Your task to perform on an android device: Open calendar and show me the second week of next month Image 0: 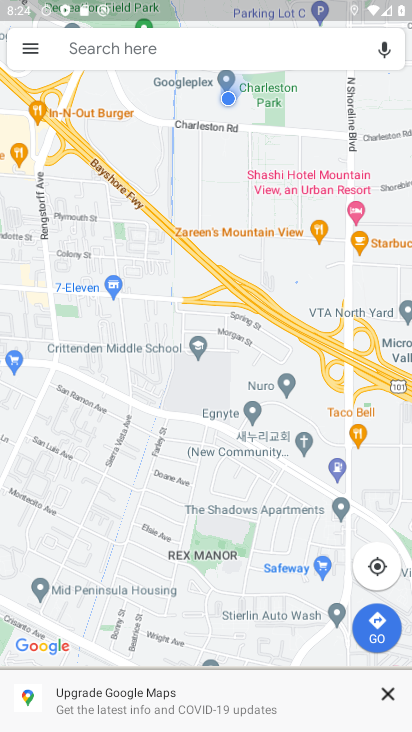
Step 0: drag from (207, 583) to (248, 355)
Your task to perform on an android device: Open calendar and show me the second week of next month Image 1: 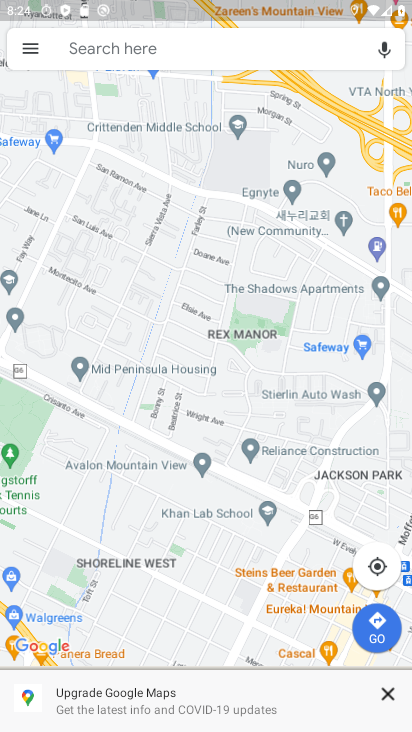
Step 1: press home button
Your task to perform on an android device: Open calendar and show me the second week of next month Image 2: 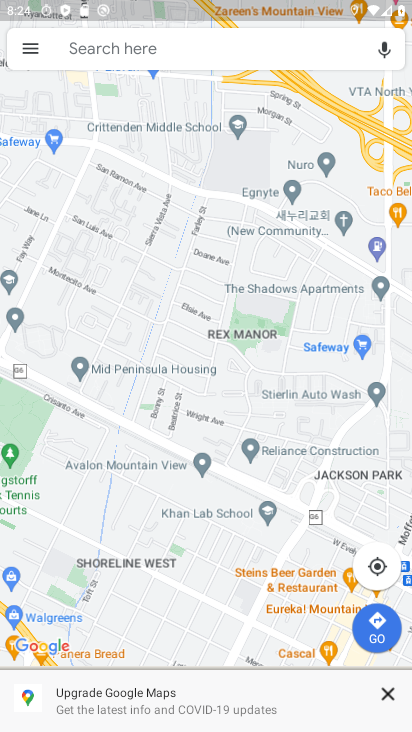
Step 2: press home button
Your task to perform on an android device: Open calendar and show me the second week of next month Image 3: 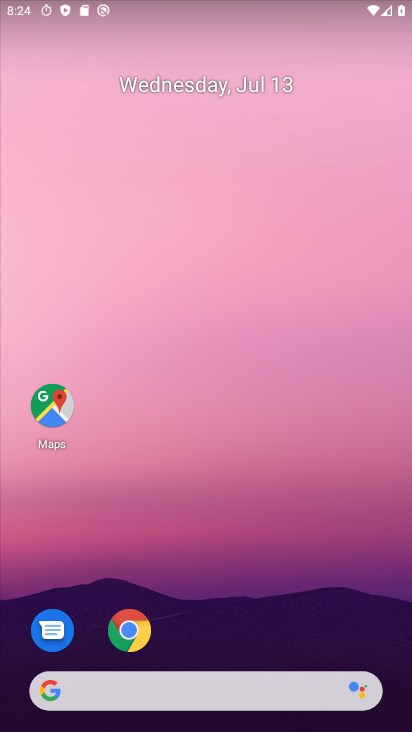
Step 3: drag from (229, 632) to (291, 178)
Your task to perform on an android device: Open calendar and show me the second week of next month Image 4: 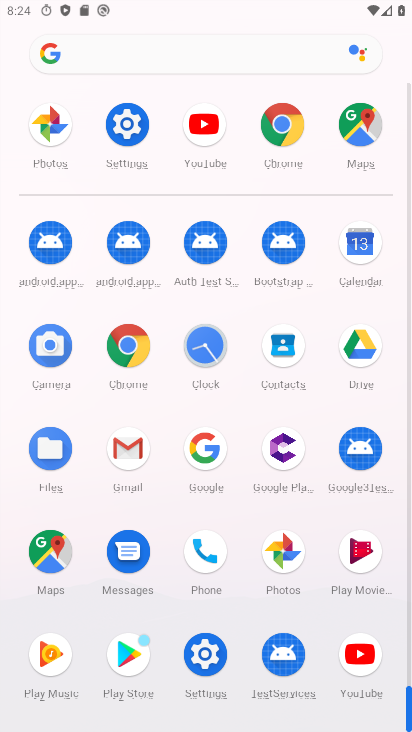
Step 4: click (351, 237)
Your task to perform on an android device: Open calendar and show me the second week of next month Image 5: 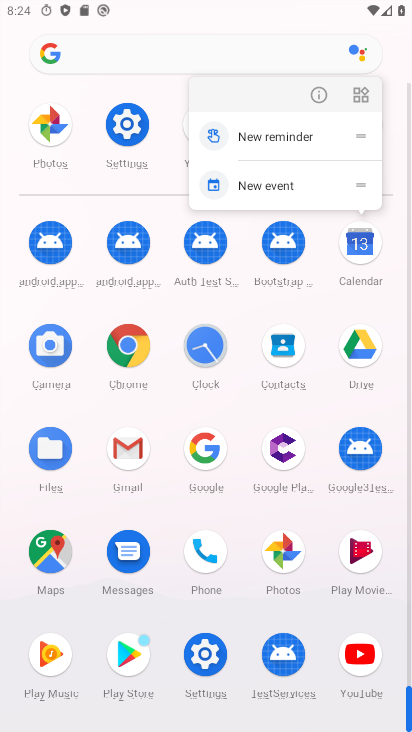
Step 5: click (323, 100)
Your task to perform on an android device: Open calendar and show me the second week of next month Image 6: 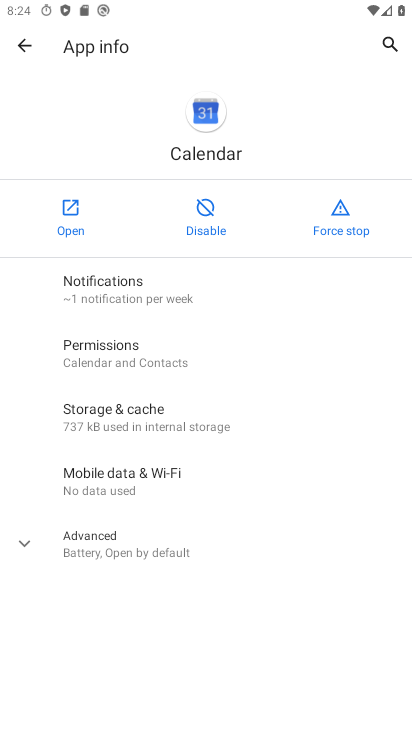
Step 6: click (76, 210)
Your task to perform on an android device: Open calendar and show me the second week of next month Image 7: 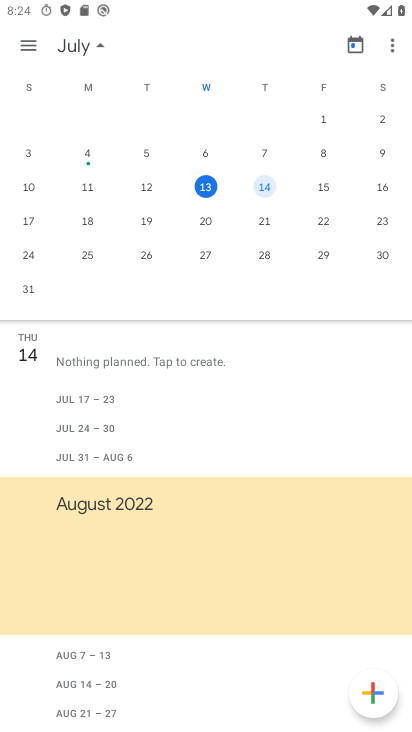
Step 7: drag from (211, 548) to (211, 393)
Your task to perform on an android device: Open calendar and show me the second week of next month Image 8: 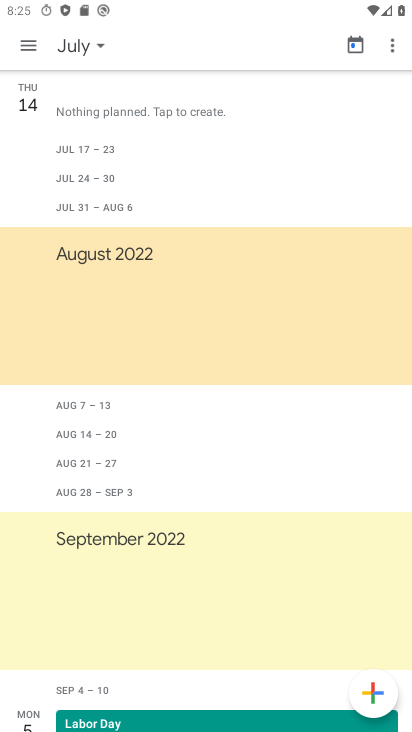
Step 8: drag from (203, 583) to (240, 238)
Your task to perform on an android device: Open calendar and show me the second week of next month Image 9: 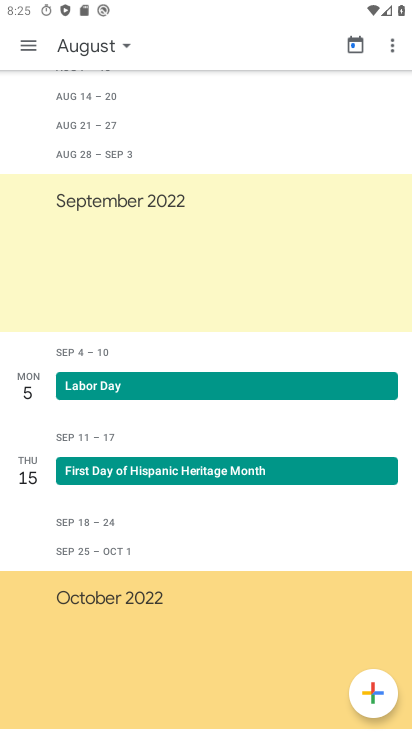
Step 9: drag from (233, 560) to (243, 303)
Your task to perform on an android device: Open calendar and show me the second week of next month Image 10: 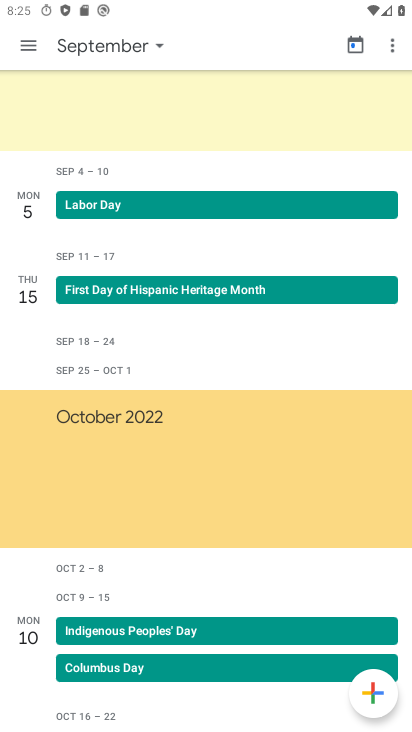
Step 10: drag from (225, 223) to (255, 706)
Your task to perform on an android device: Open calendar and show me the second week of next month Image 11: 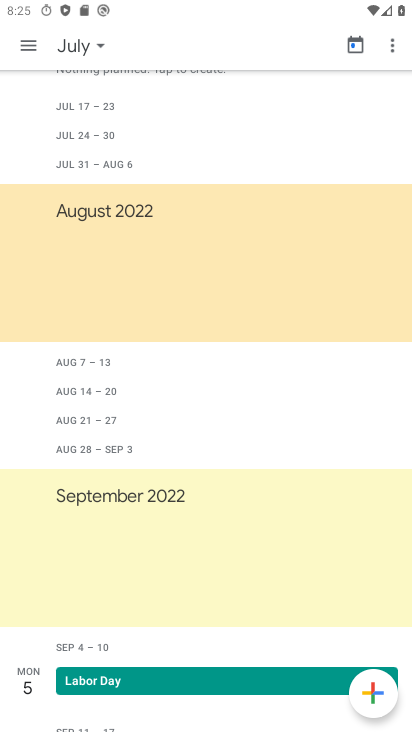
Step 11: click (339, 43)
Your task to perform on an android device: Open calendar and show me the second week of next month Image 12: 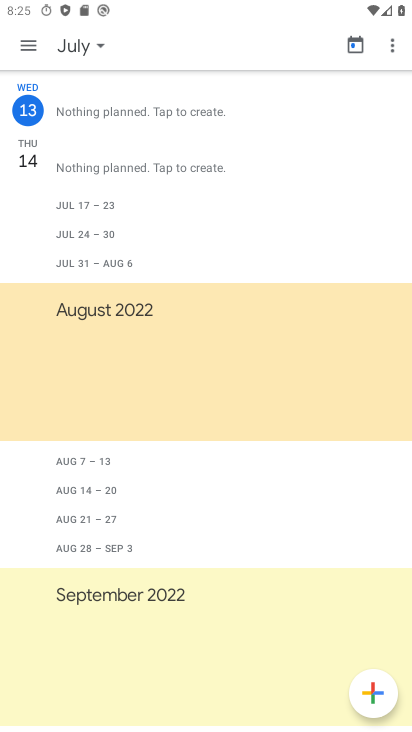
Step 12: drag from (204, 474) to (285, 20)
Your task to perform on an android device: Open calendar and show me the second week of next month Image 13: 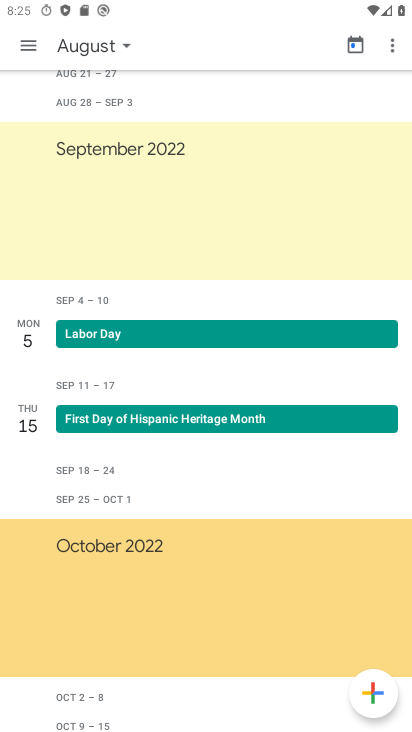
Step 13: click (116, 37)
Your task to perform on an android device: Open calendar and show me the second week of next month Image 14: 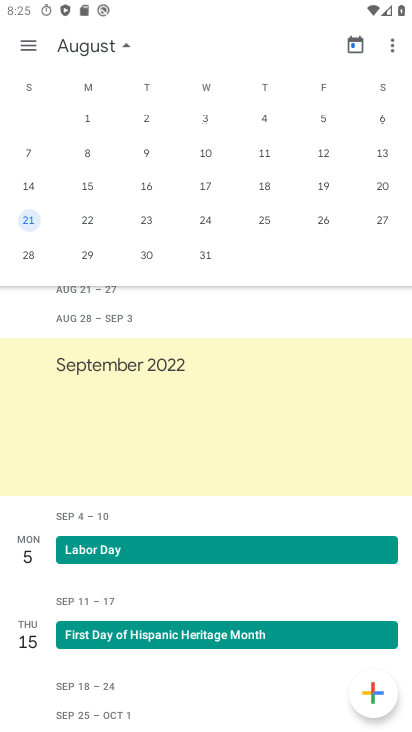
Step 14: click (267, 153)
Your task to perform on an android device: Open calendar and show me the second week of next month Image 15: 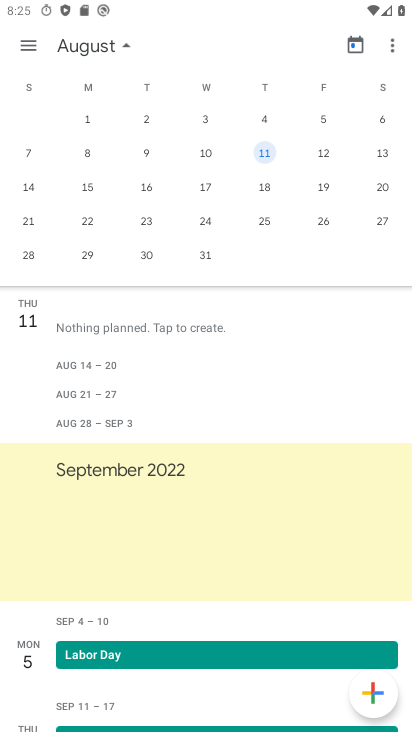
Step 15: task complete